Your task to perform on an android device: Go to wifi settings Image 0: 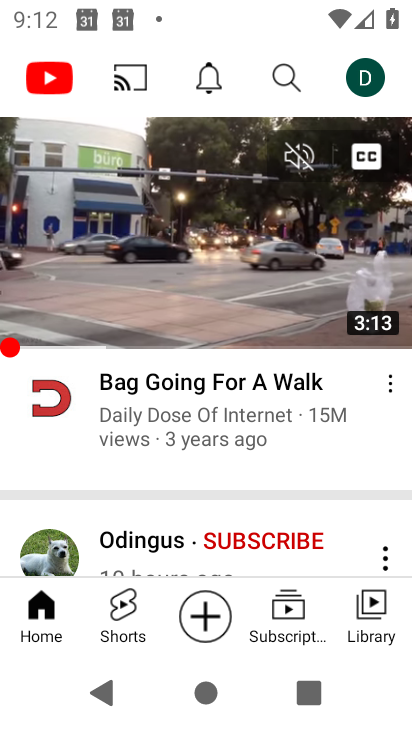
Step 0: press home button
Your task to perform on an android device: Go to wifi settings Image 1: 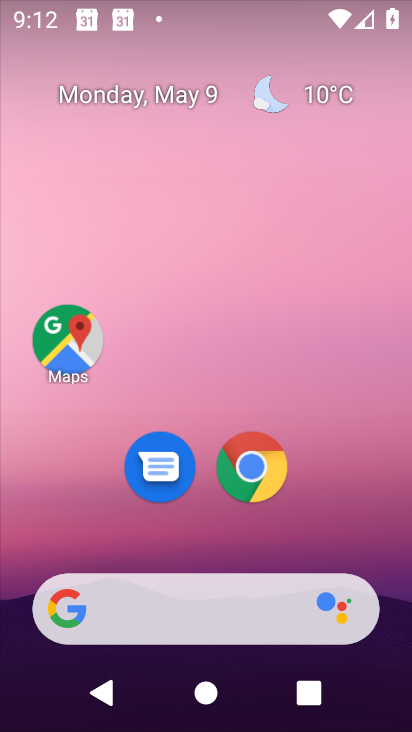
Step 1: drag from (351, 479) to (324, 15)
Your task to perform on an android device: Go to wifi settings Image 2: 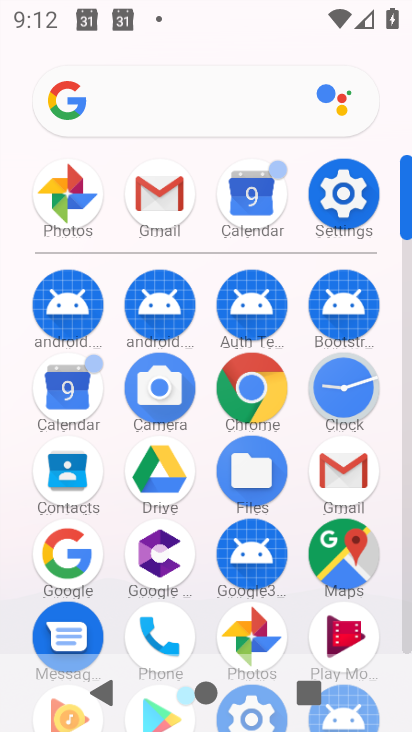
Step 2: click (342, 204)
Your task to perform on an android device: Go to wifi settings Image 3: 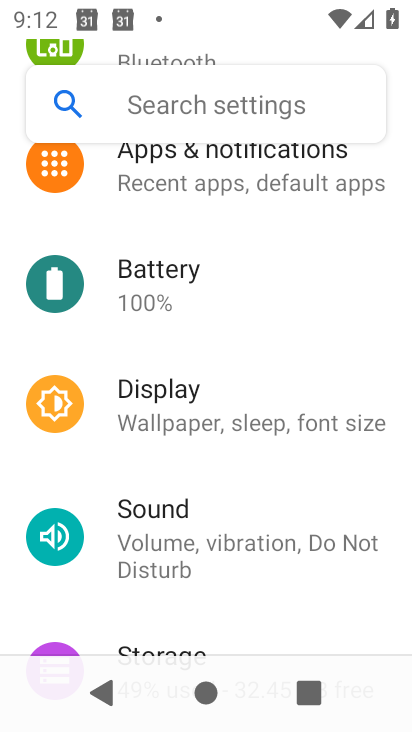
Step 3: drag from (340, 227) to (369, 437)
Your task to perform on an android device: Go to wifi settings Image 4: 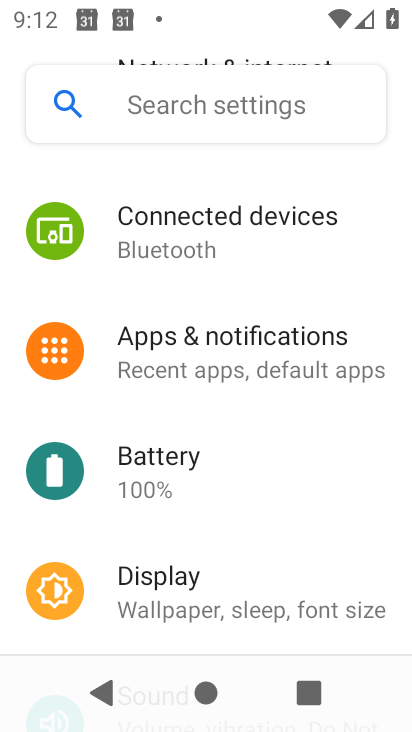
Step 4: drag from (355, 280) to (368, 475)
Your task to perform on an android device: Go to wifi settings Image 5: 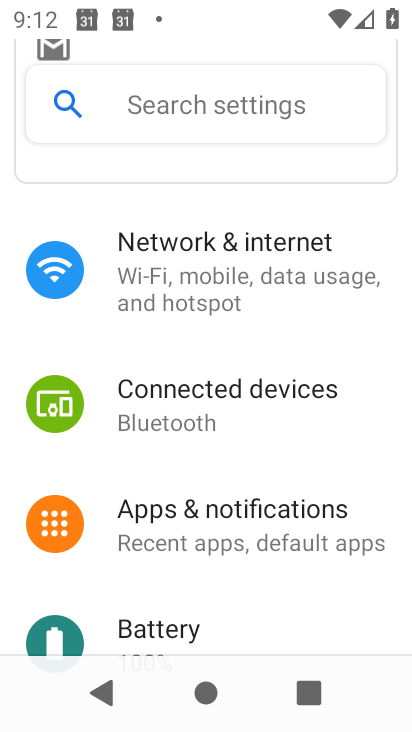
Step 5: click (229, 284)
Your task to perform on an android device: Go to wifi settings Image 6: 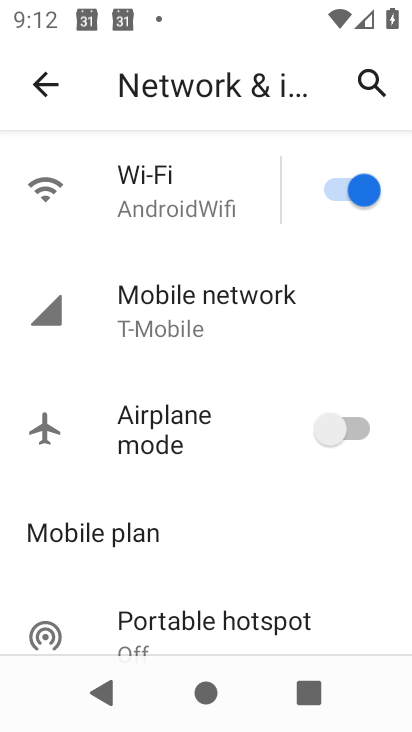
Step 6: click (116, 197)
Your task to perform on an android device: Go to wifi settings Image 7: 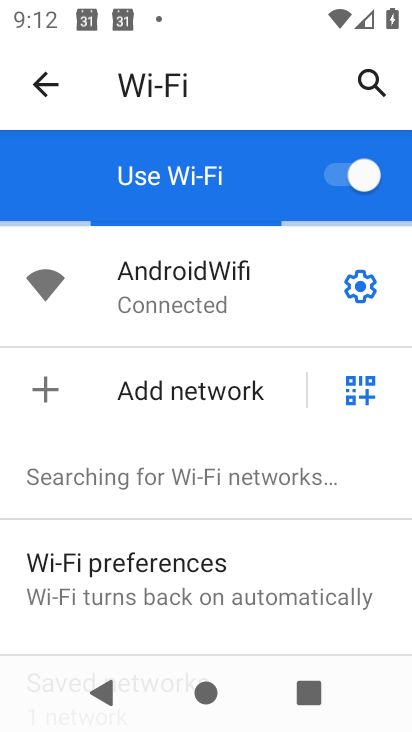
Step 7: task complete